Your task to perform on an android device: What's on my calendar tomorrow? Image 0: 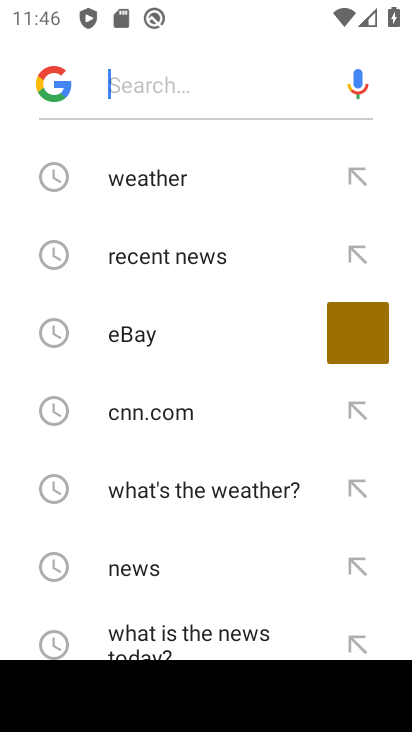
Step 0: press home button
Your task to perform on an android device: What's on my calendar tomorrow? Image 1: 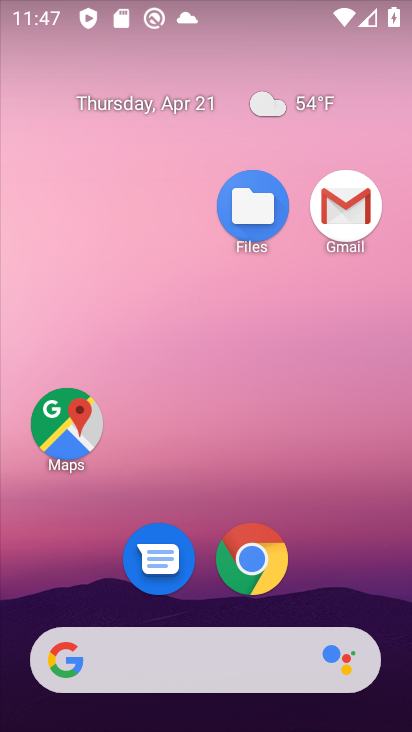
Step 1: drag from (240, 628) to (337, 106)
Your task to perform on an android device: What's on my calendar tomorrow? Image 2: 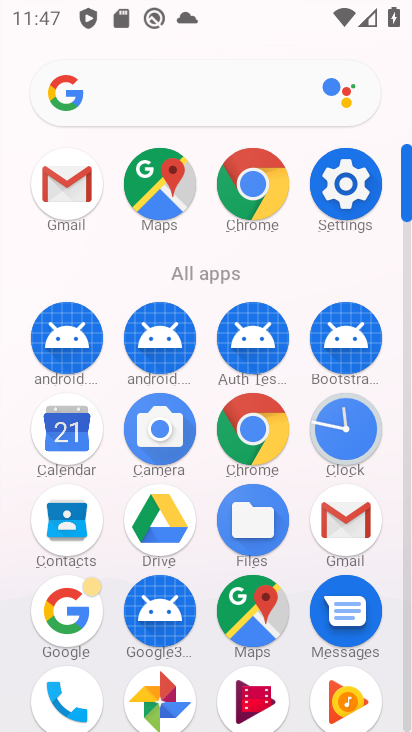
Step 2: click (61, 439)
Your task to perform on an android device: What's on my calendar tomorrow? Image 3: 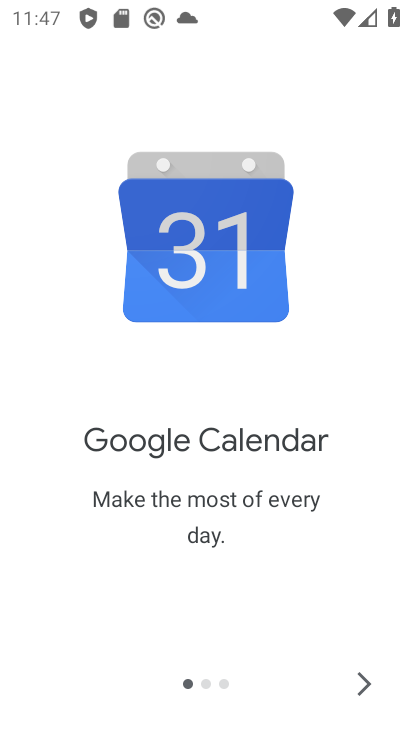
Step 3: click (356, 681)
Your task to perform on an android device: What's on my calendar tomorrow? Image 4: 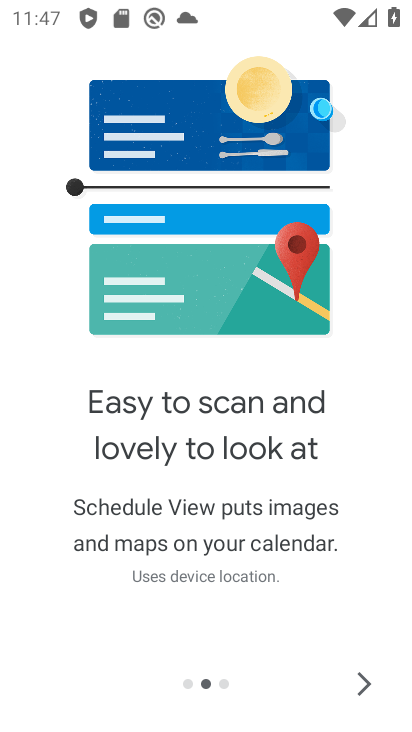
Step 4: click (356, 681)
Your task to perform on an android device: What's on my calendar tomorrow? Image 5: 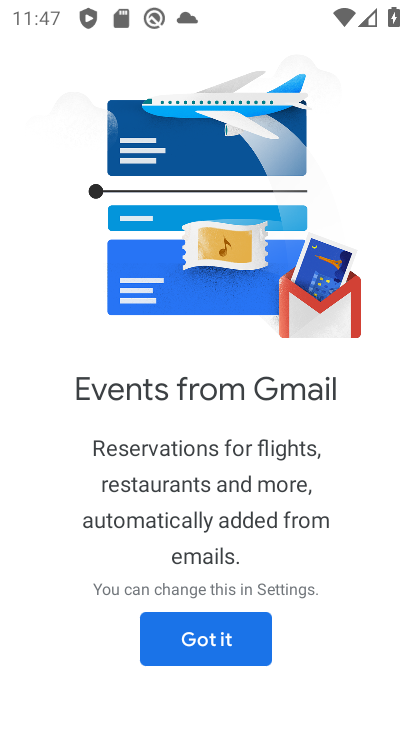
Step 5: click (215, 641)
Your task to perform on an android device: What's on my calendar tomorrow? Image 6: 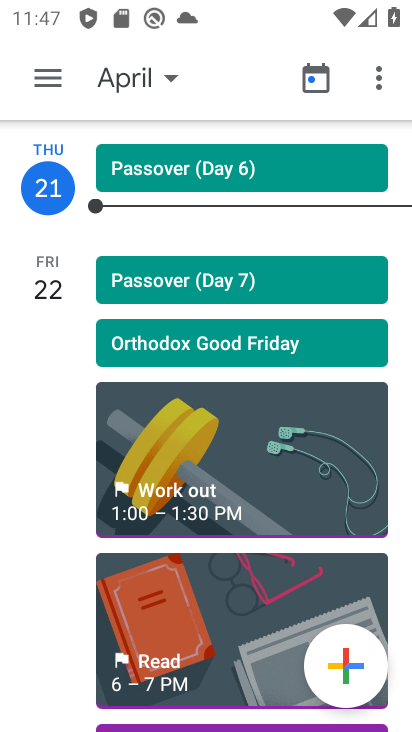
Step 6: drag from (194, 446) to (157, 110)
Your task to perform on an android device: What's on my calendar tomorrow? Image 7: 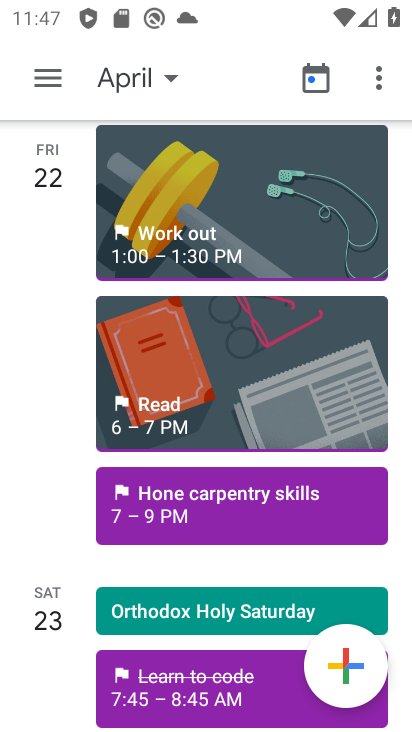
Step 7: click (248, 600)
Your task to perform on an android device: What's on my calendar tomorrow? Image 8: 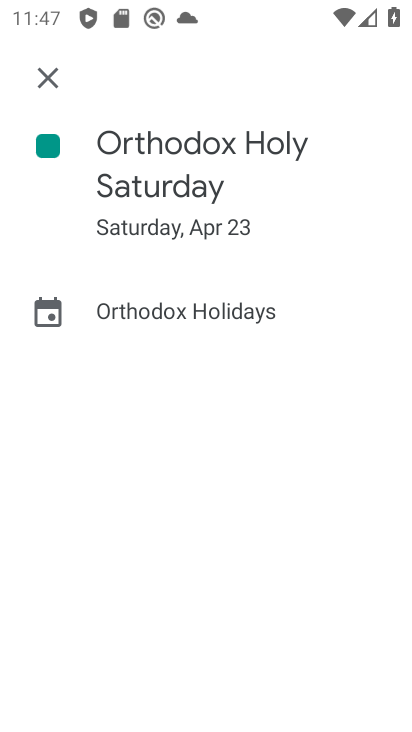
Step 8: task complete